Your task to perform on an android device: What's the weather going to be tomorrow? Image 0: 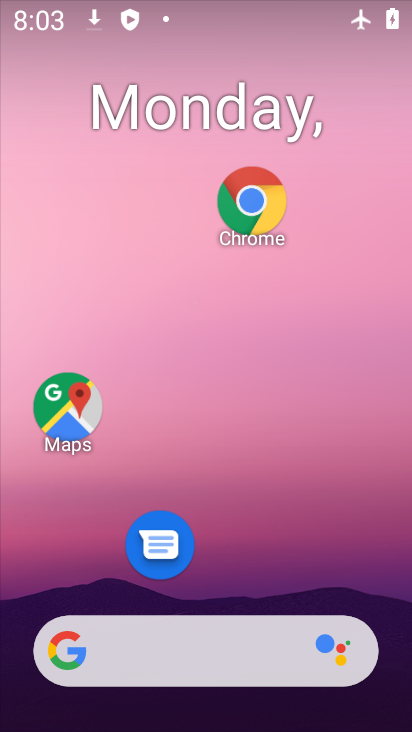
Step 0: drag from (242, 597) to (209, 133)
Your task to perform on an android device: What's the weather going to be tomorrow? Image 1: 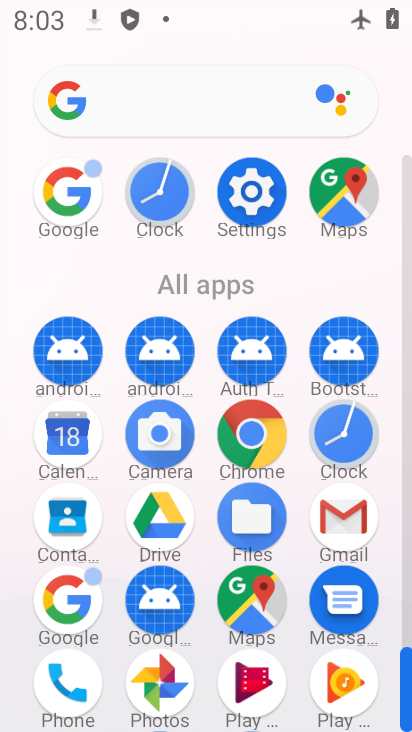
Step 1: click (61, 201)
Your task to perform on an android device: What's the weather going to be tomorrow? Image 2: 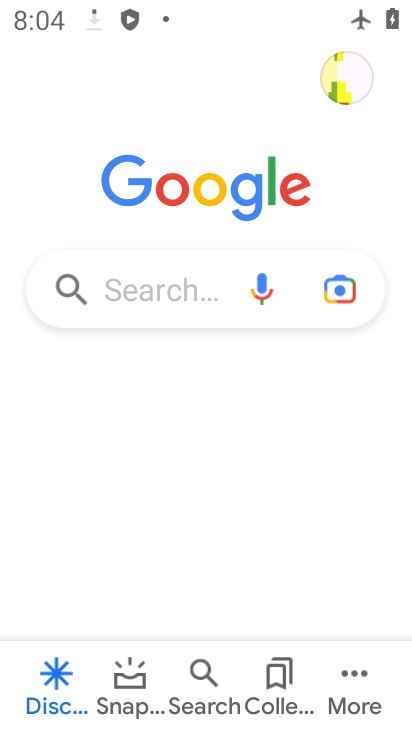
Step 2: task complete